Your task to perform on an android device: check storage Image 0: 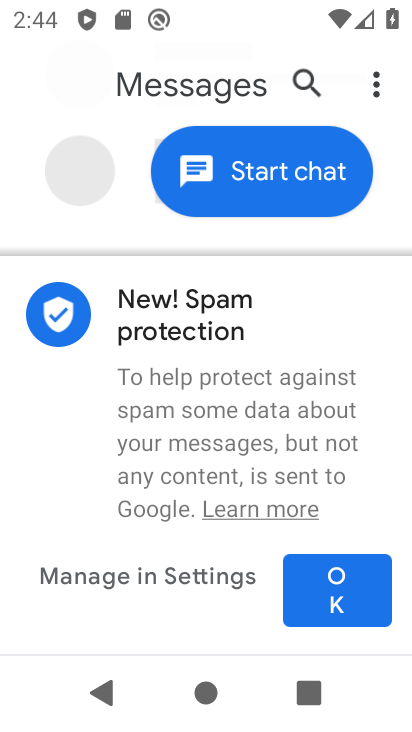
Step 0: press home button
Your task to perform on an android device: check storage Image 1: 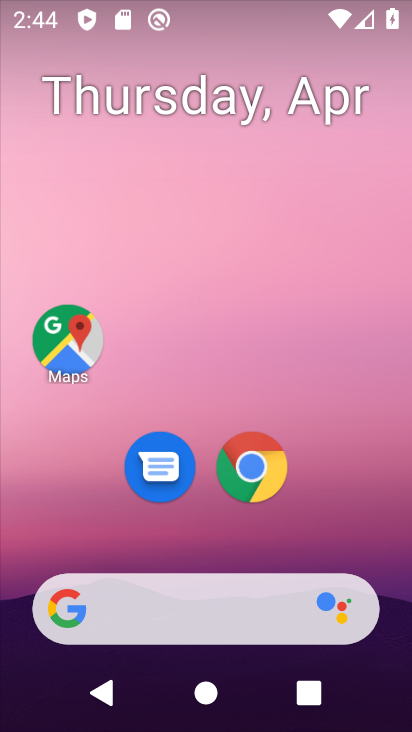
Step 1: drag from (313, 508) to (346, 141)
Your task to perform on an android device: check storage Image 2: 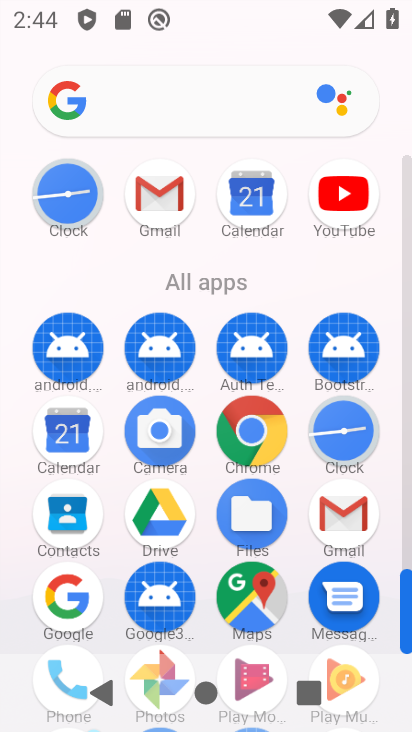
Step 2: drag from (194, 531) to (224, 185)
Your task to perform on an android device: check storage Image 3: 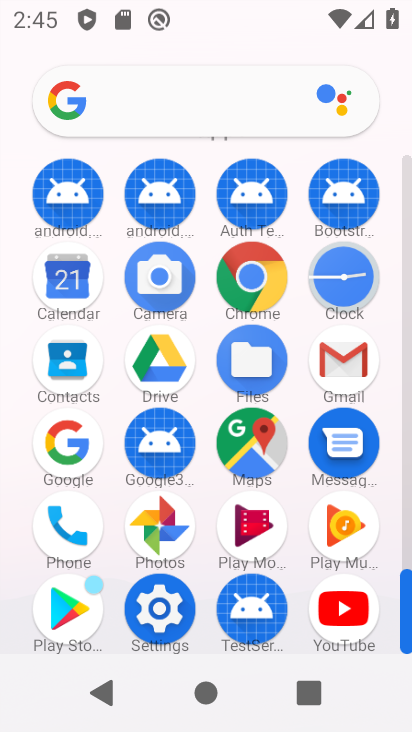
Step 3: click (169, 594)
Your task to perform on an android device: check storage Image 4: 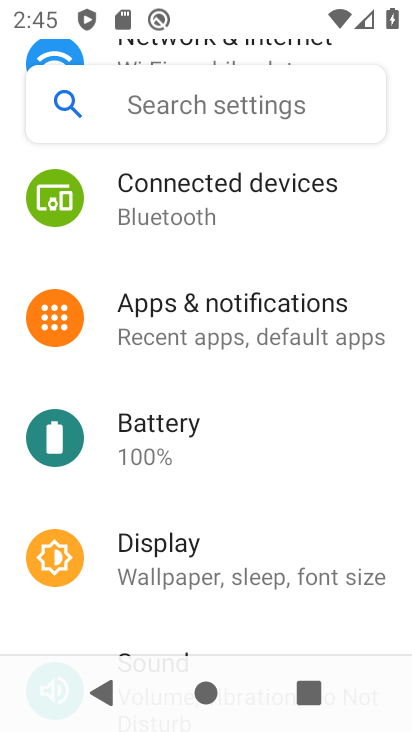
Step 4: drag from (253, 508) to (257, 193)
Your task to perform on an android device: check storage Image 5: 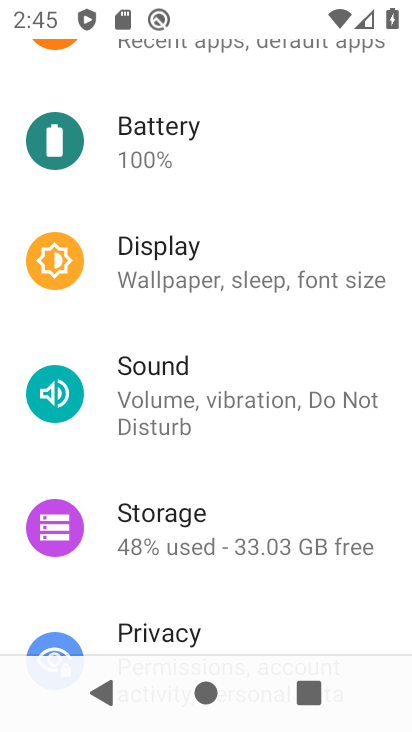
Step 5: click (236, 519)
Your task to perform on an android device: check storage Image 6: 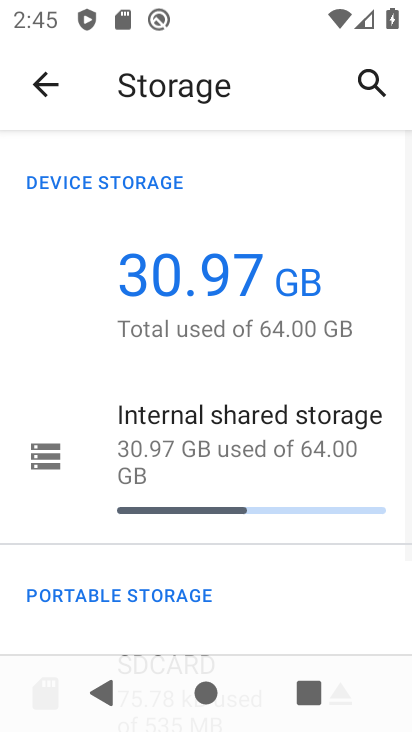
Step 6: task complete